Your task to perform on an android device: Search for the best selling vase on Crate & Barrel Image 0: 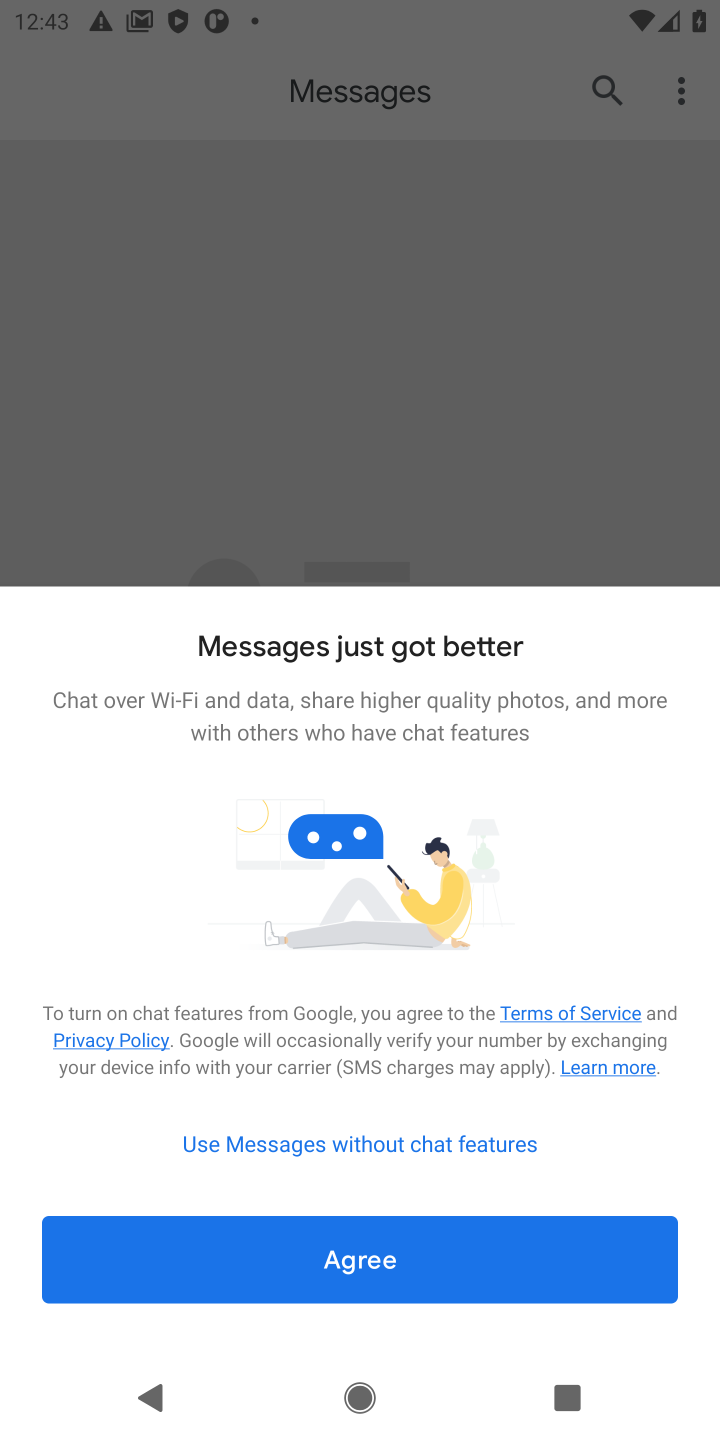
Step 0: press home button
Your task to perform on an android device: Search for the best selling vase on Crate & Barrel Image 1: 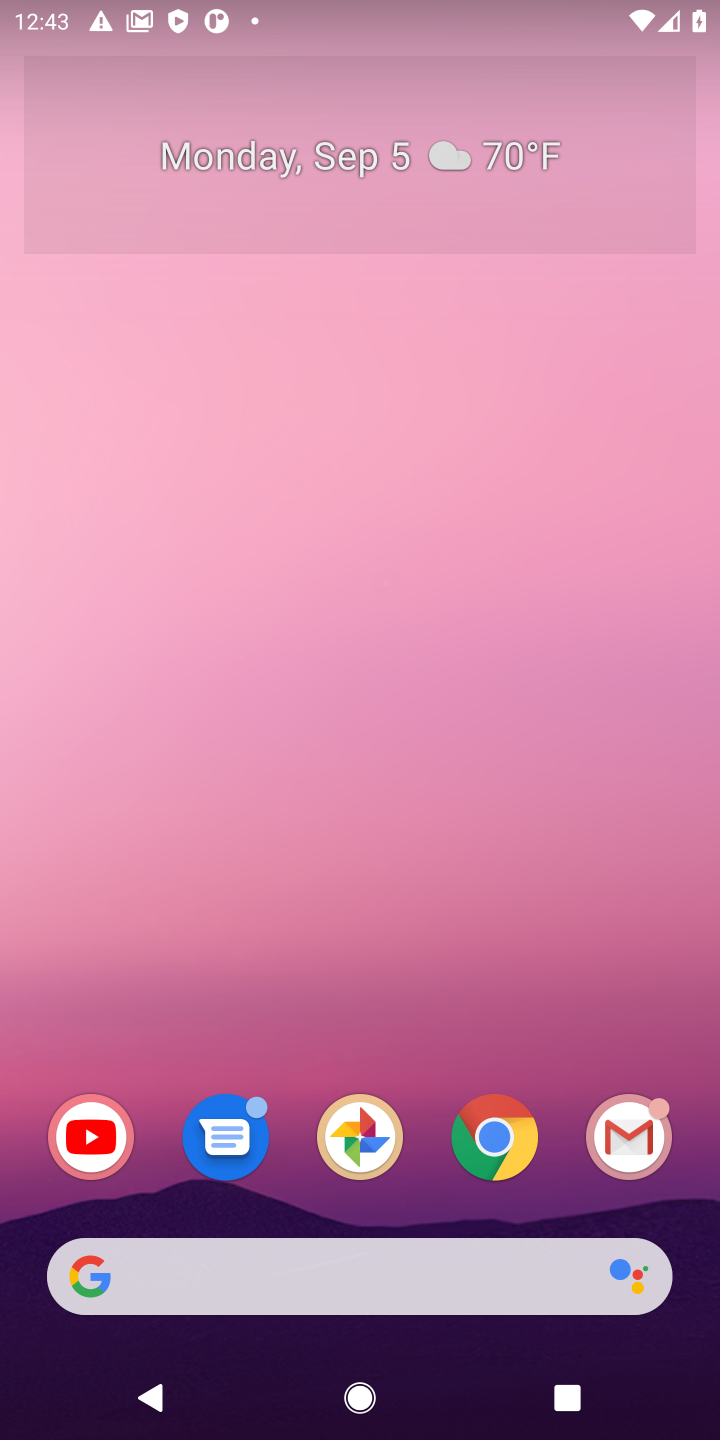
Step 1: click (497, 1129)
Your task to perform on an android device: Search for the best selling vase on Crate & Barrel Image 2: 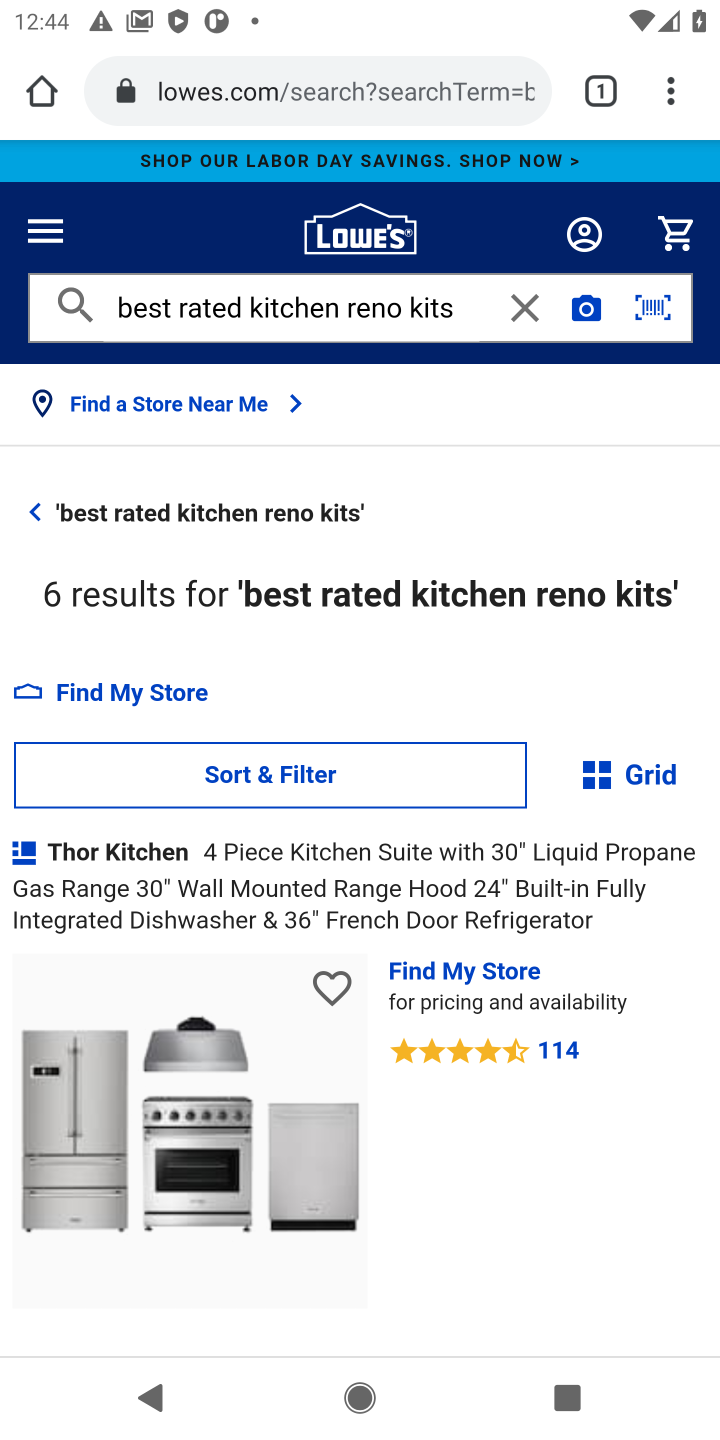
Step 2: click (391, 108)
Your task to perform on an android device: Search for the best selling vase on Crate & Barrel Image 3: 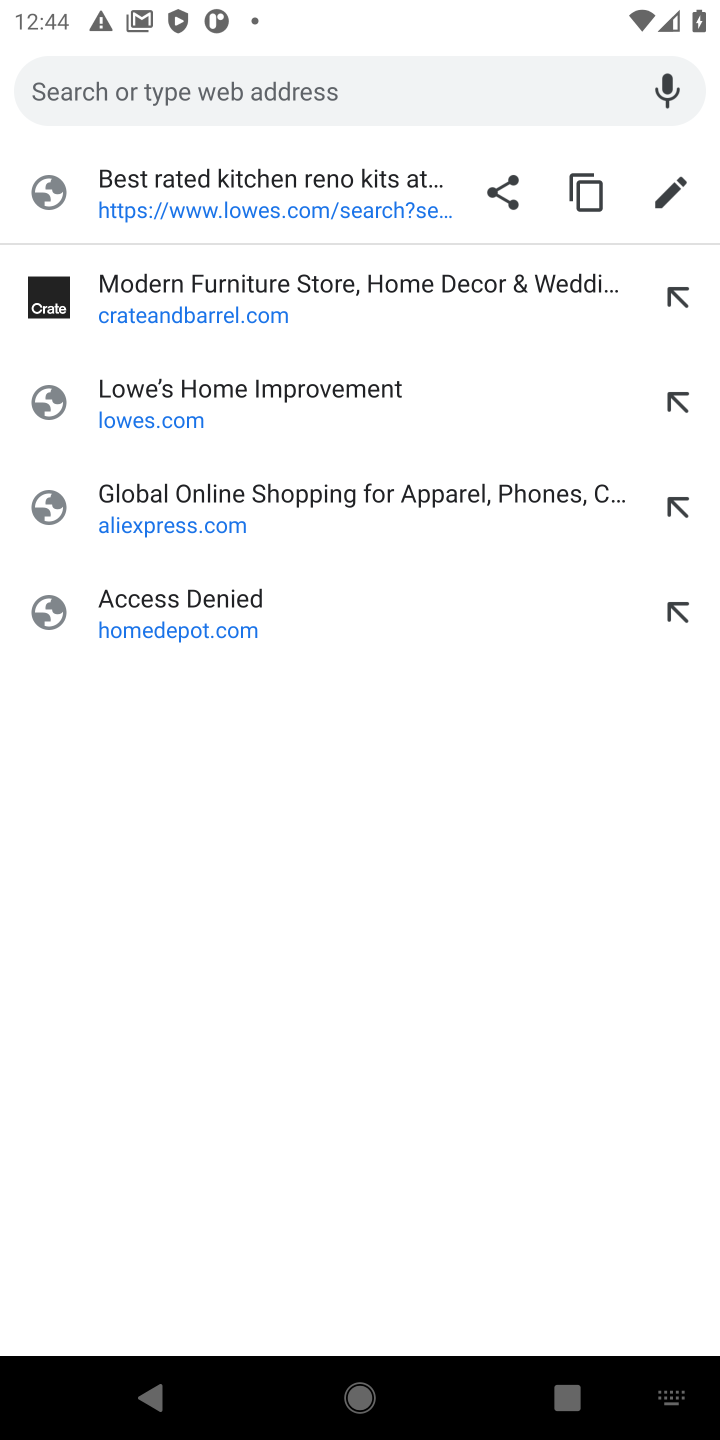
Step 3: type "crate and barrel"
Your task to perform on an android device: Search for the best selling vase on Crate & Barrel Image 4: 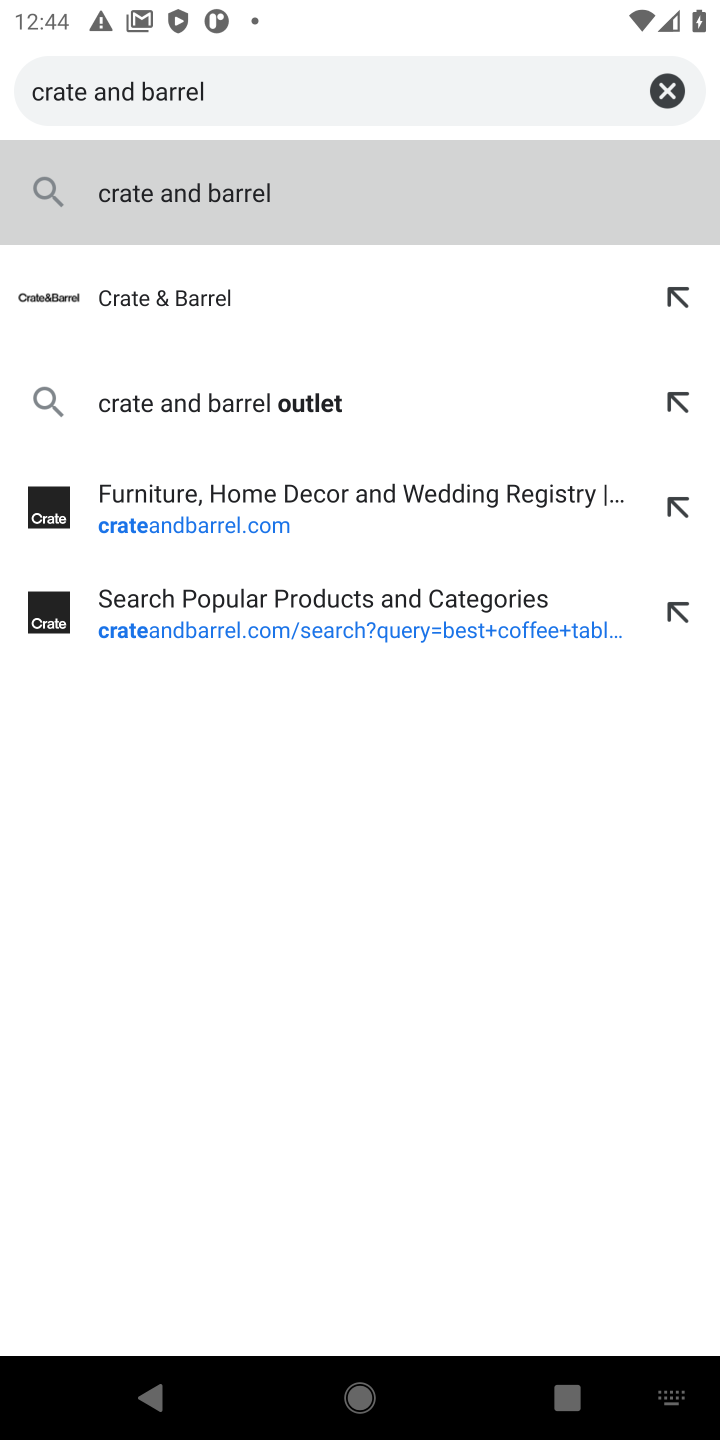
Step 4: click (338, 499)
Your task to perform on an android device: Search for the best selling vase on Crate & Barrel Image 5: 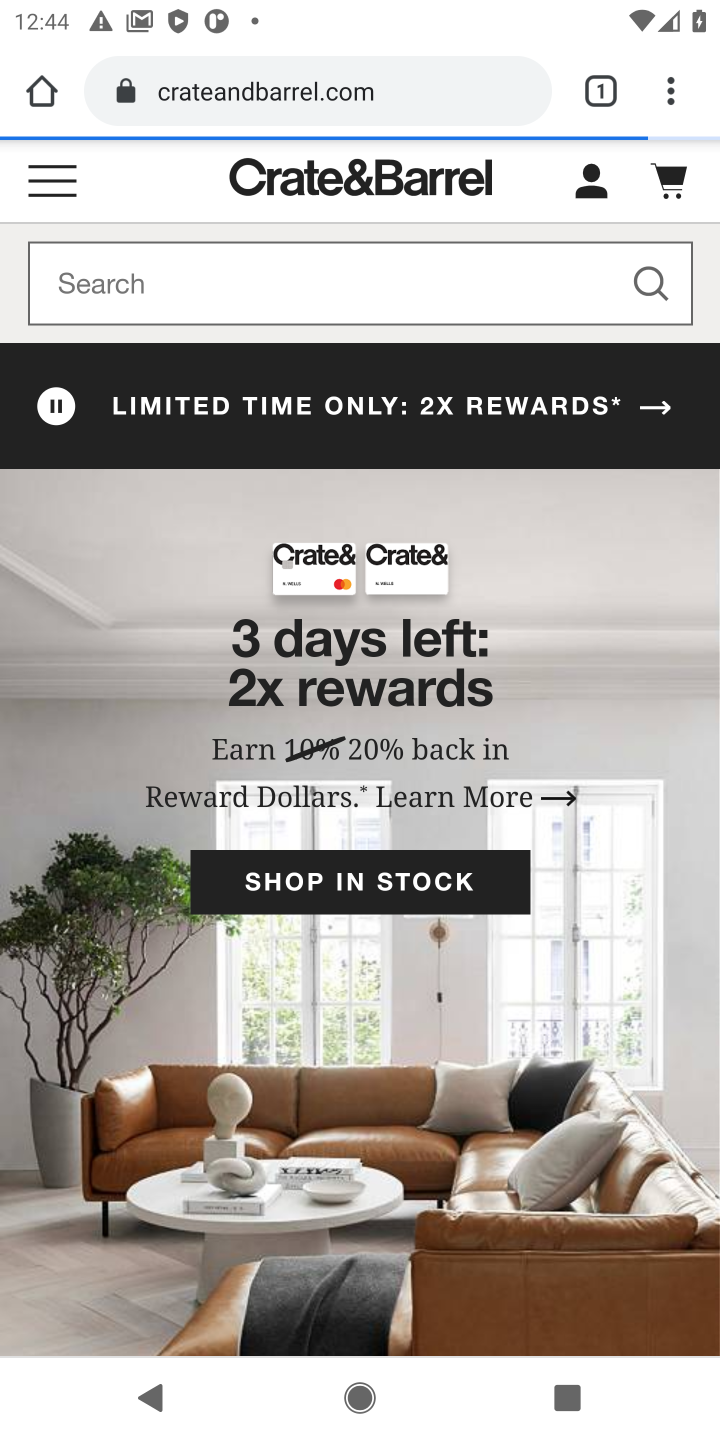
Step 5: click (407, 310)
Your task to perform on an android device: Search for the best selling vase on Crate & Barrel Image 6: 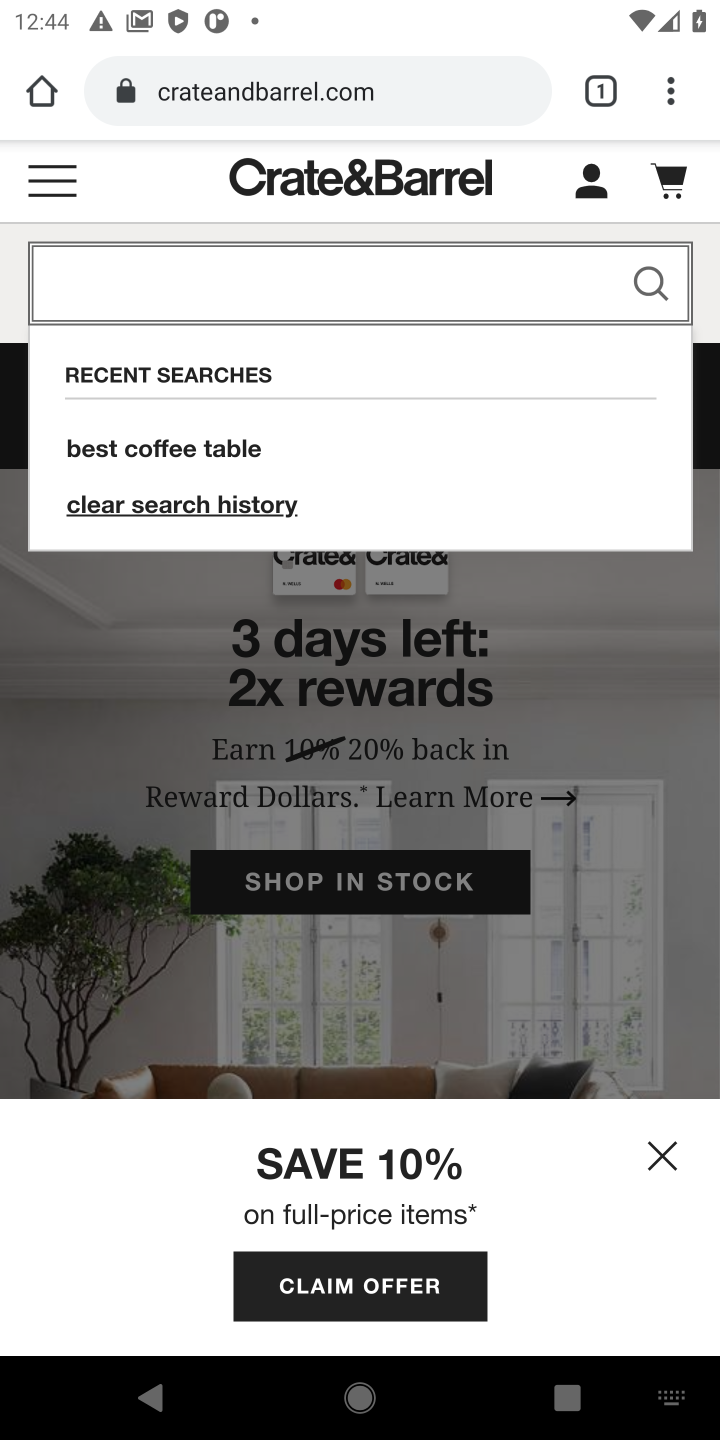
Step 6: type "best selling vase"
Your task to perform on an android device: Search for the best selling vase on Crate & Barrel Image 7: 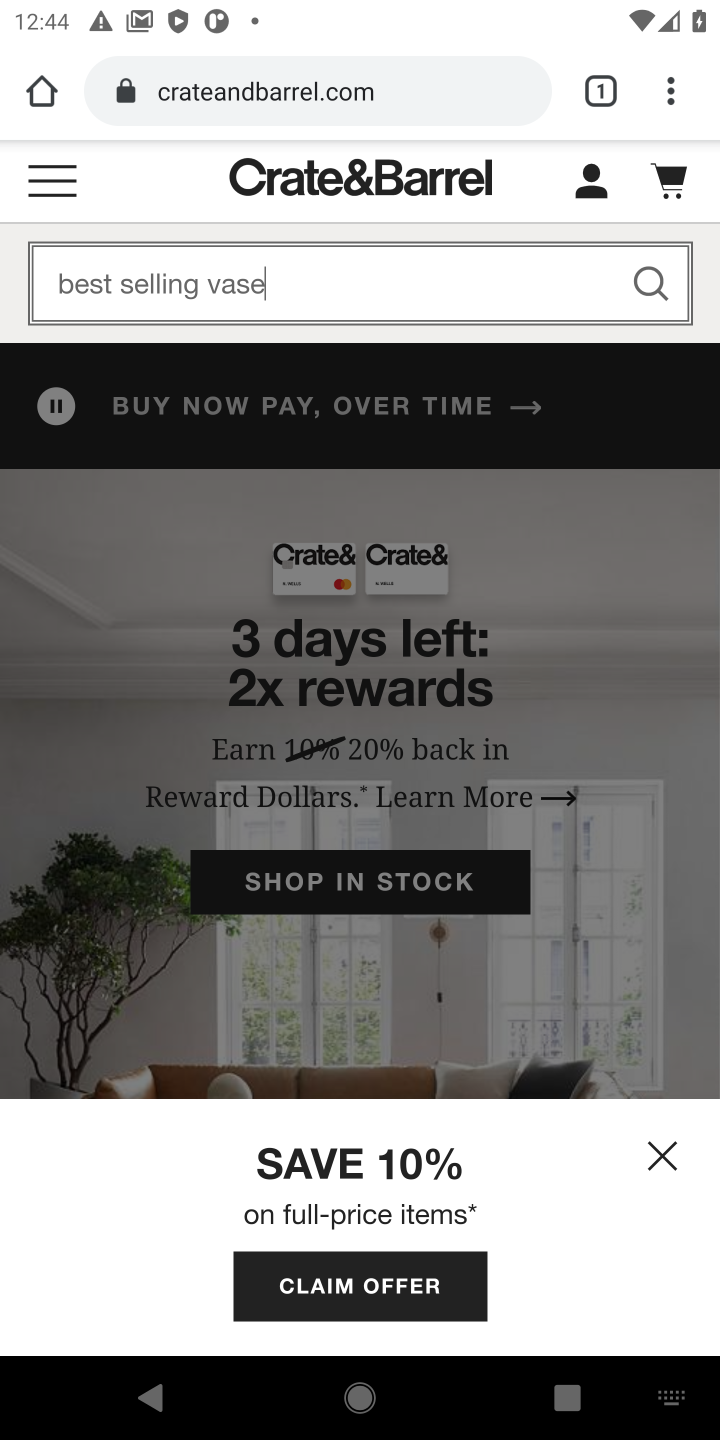
Step 7: task complete